Your task to perform on an android device: visit the assistant section in the google photos Image 0: 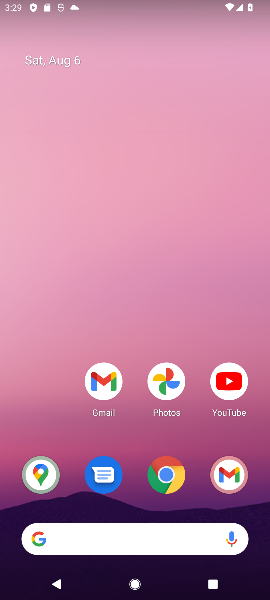
Step 0: click (171, 372)
Your task to perform on an android device: visit the assistant section in the google photos Image 1: 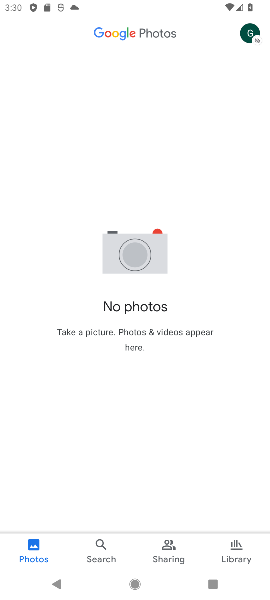
Step 1: task complete